Your task to perform on an android device: make emails show in primary in the gmail app Image 0: 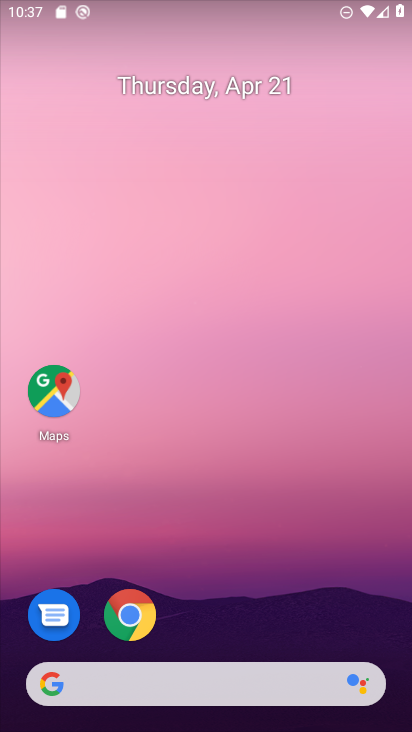
Step 0: drag from (202, 694) to (165, 239)
Your task to perform on an android device: make emails show in primary in the gmail app Image 1: 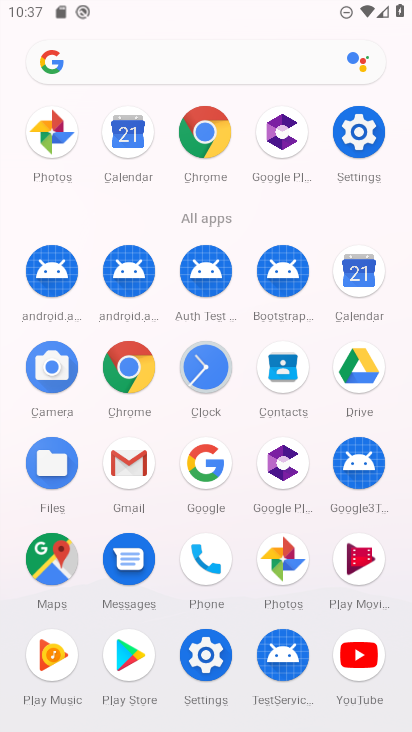
Step 1: click (131, 464)
Your task to perform on an android device: make emails show in primary in the gmail app Image 2: 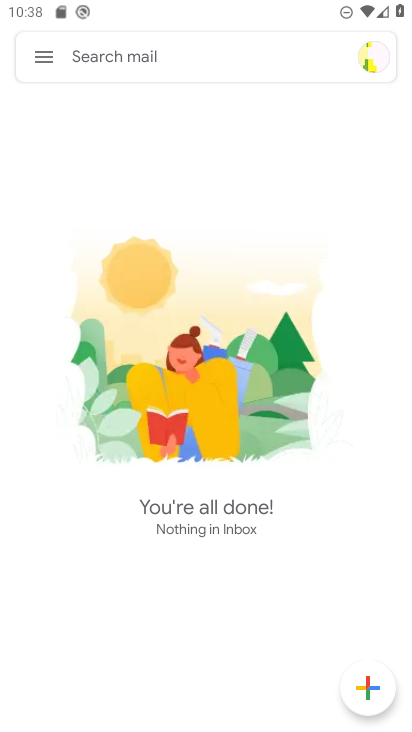
Step 2: click (44, 56)
Your task to perform on an android device: make emails show in primary in the gmail app Image 3: 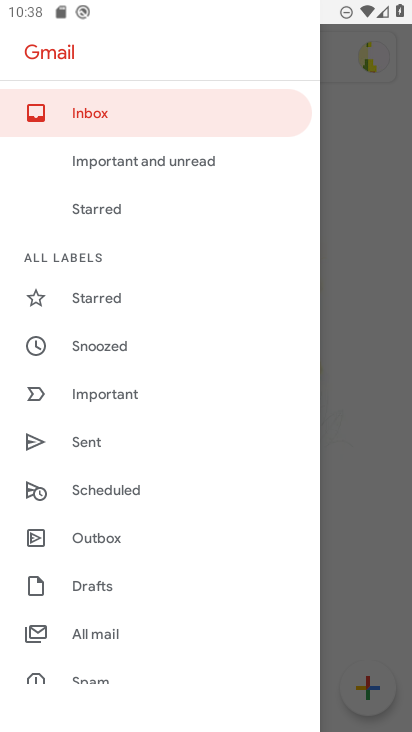
Step 3: drag from (155, 643) to (126, 322)
Your task to perform on an android device: make emails show in primary in the gmail app Image 4: 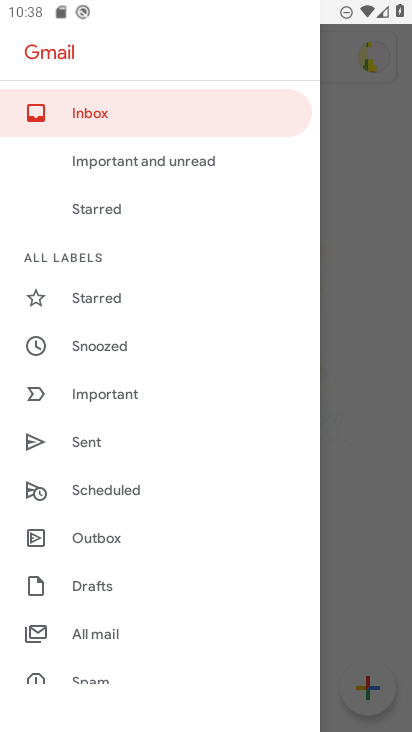
Step 4: drag from (89, 641) to (74, 369)
Your task to perform on an android device: make emails show in primary in the gmail app Image 5: 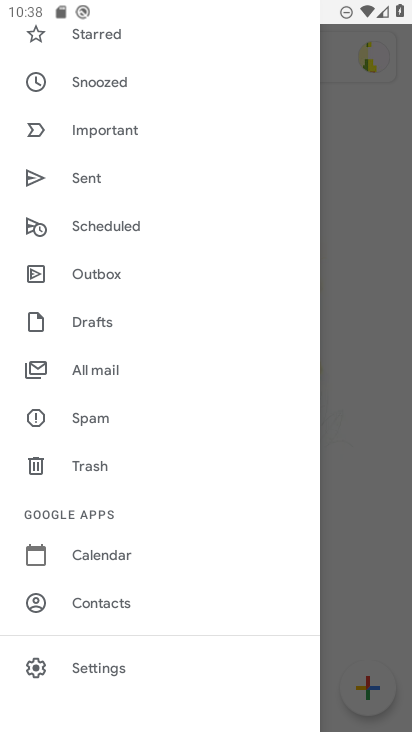
Step 5: click (106, 667)
Your task to perform on an android device: make emails show in primary in the gmail app Image 6: 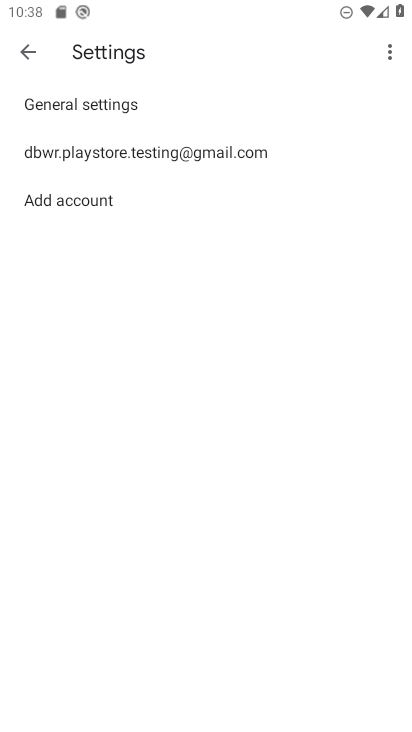
Step 6: click (188, 150)
Your task to perform on an android device: make emails show in primary in the gmail app Image 7: 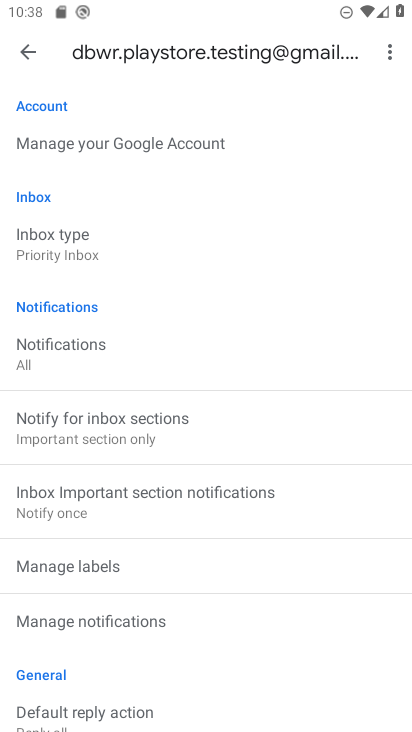
Step 7: click (65, 244)
Your task to perform on an android device: make emails show in primary in the gmail app Image 8: 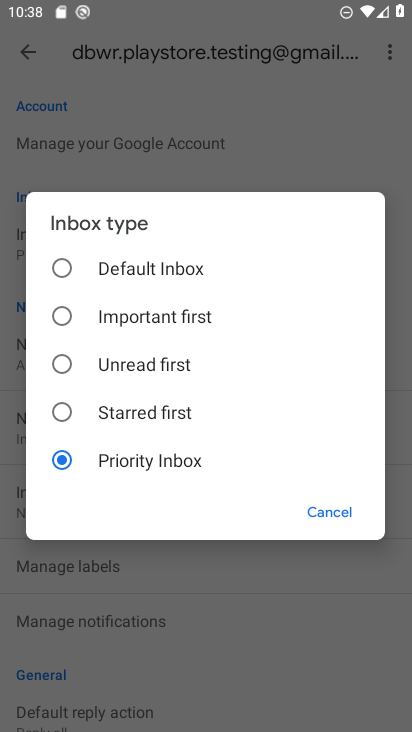
Step 8: click (63, 263)
Your task to perform on an android device: make emails show in primary in the gmail app Image 9: 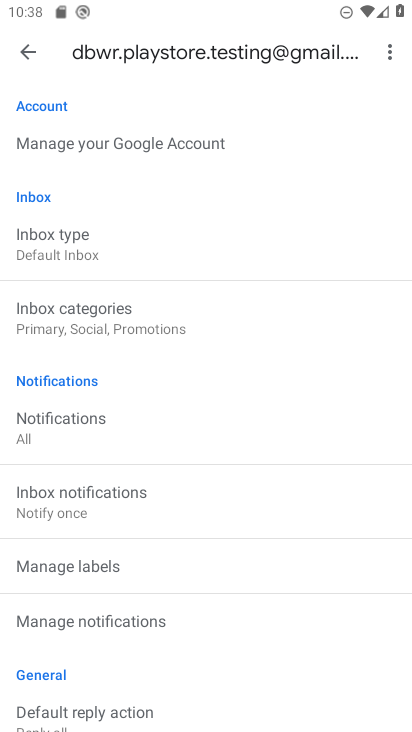
Step 9: click (82, 319)
Your task to perform on an android device: make emails show in primary in the gmail app Image 10: 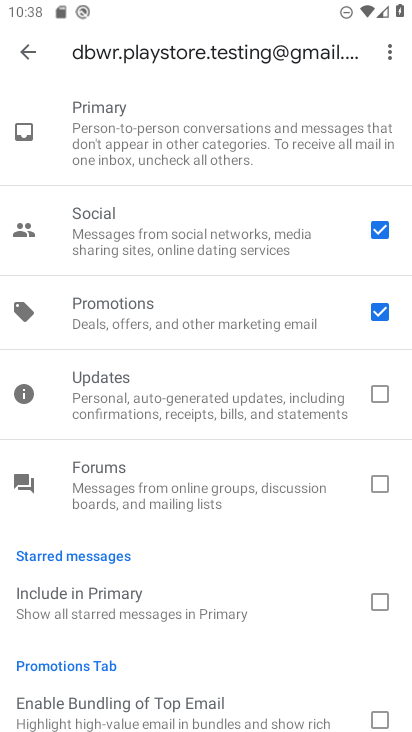
Step 10: click (379, 307)
Your task to perform on an android device: make emails show in primary in the gmail app Image 11: 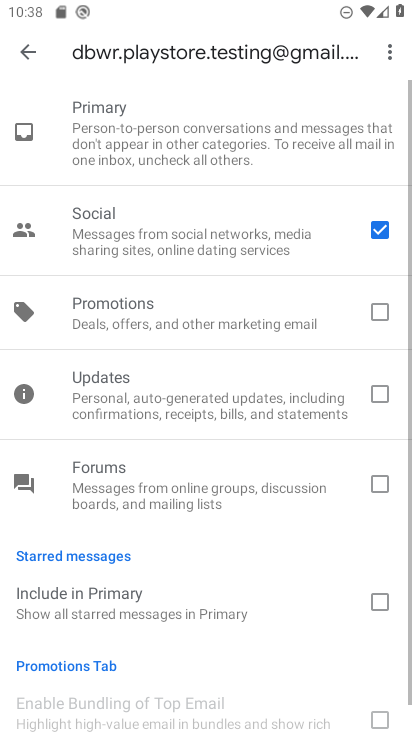
Step 11: click (378, 228)
Your task to perform on an android device: make emails show in primary in the gmail app Image 12: 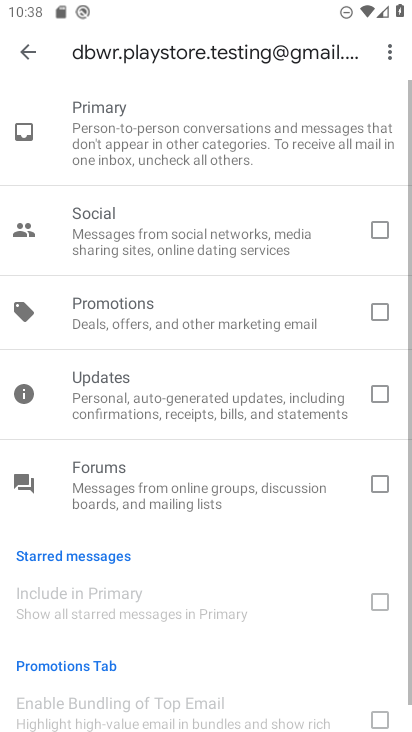
Step 12: click (25, 47)
Your task to perform on an android device: make emails show in primary in the gmail app Image 13: 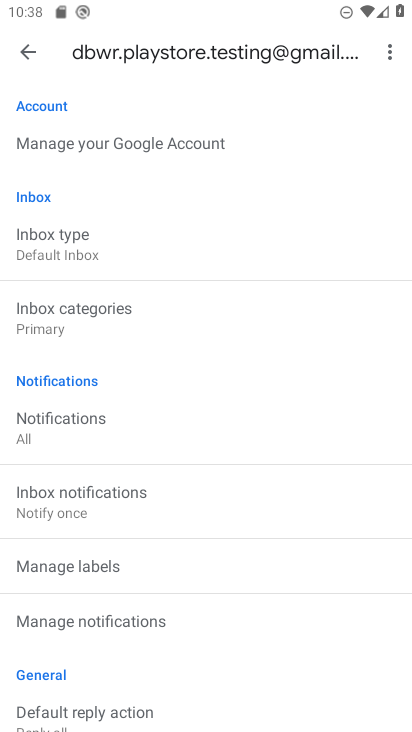
Step 13: task complete